Your task to perform on an android device: visit the assistant section in the google photos Image 0: 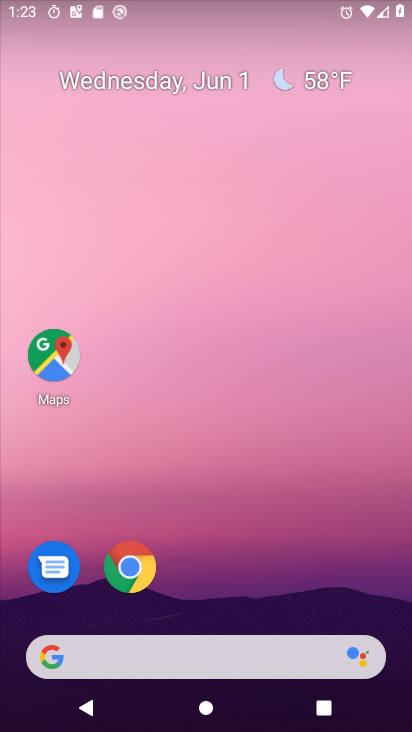
Step 0: drag from (279, 603) to (19, 23)
Your task to perform on an android device: visit the assistant section in the google photos Image 1: 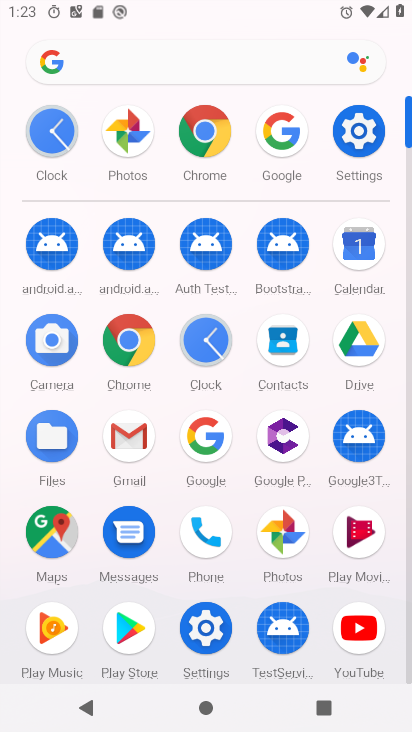
Step 1: click (275, 532)
Your task to perform on an android device: visit the assistant section in the google photos Image 2: 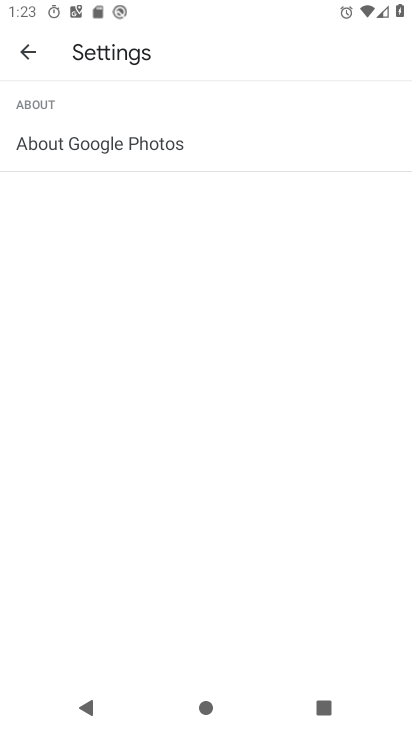
Step 2: press back button
Your task to perform on an android device: visit the assistant section in the google photos Image 3: 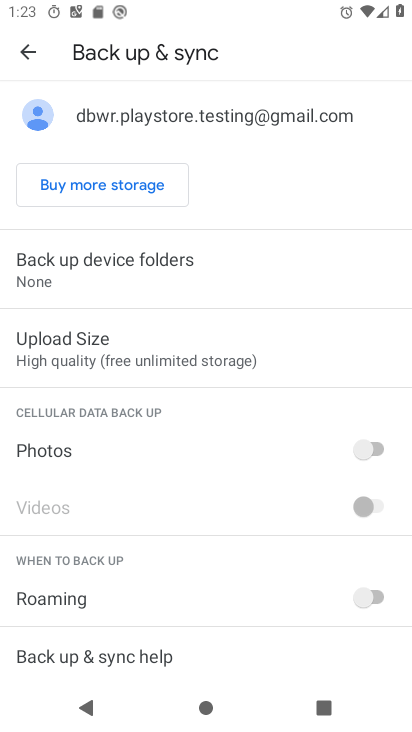
Step 3: press back button
Your task to perform on an android device: visit the assistant section in the google photos Image 4: 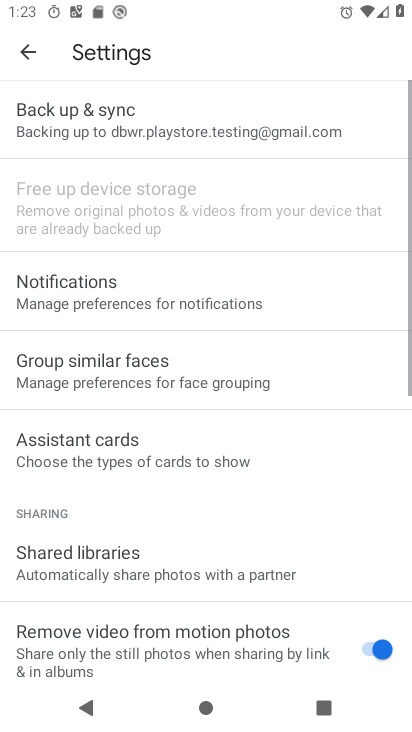
Step 4: press back button
Your task to perform on an android device: visit the assistant section in the google photos Image 5: 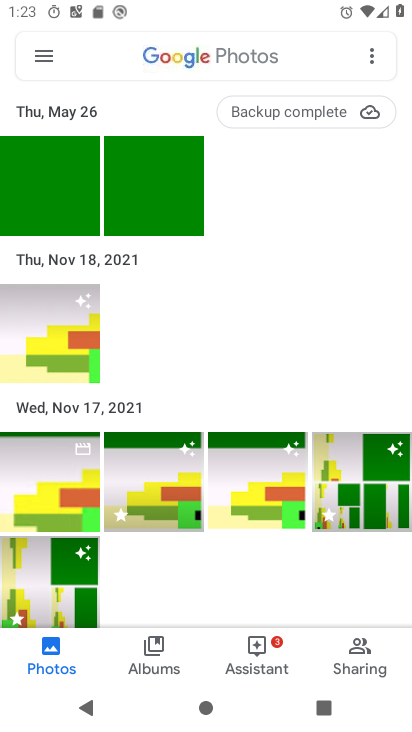
Step 5: click (256, 656)
Your task to perform on an android device: visit the assistant section in the google photos Image 6: 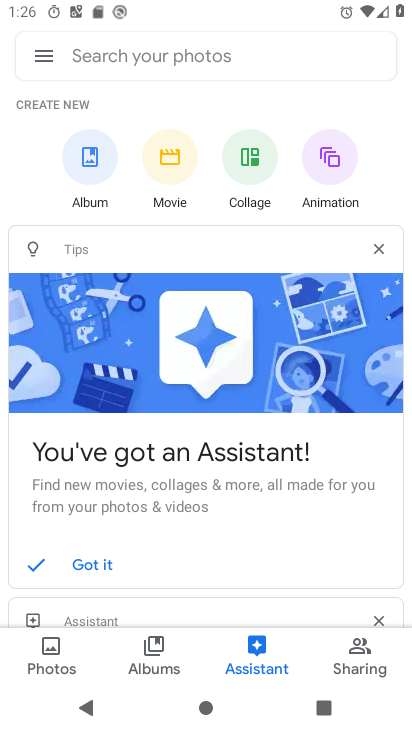
Step 6: task complete